Your task to perform on an android device: Open privacy settings Image 0: 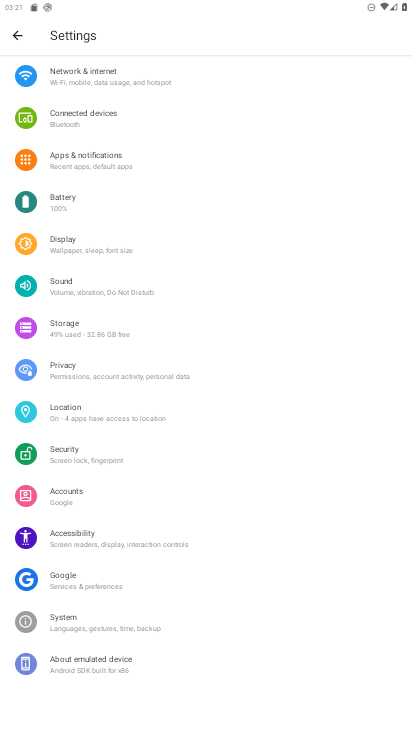
Step 0: press home button
Your task to perform on an android device: Open privacy settings Image 1: 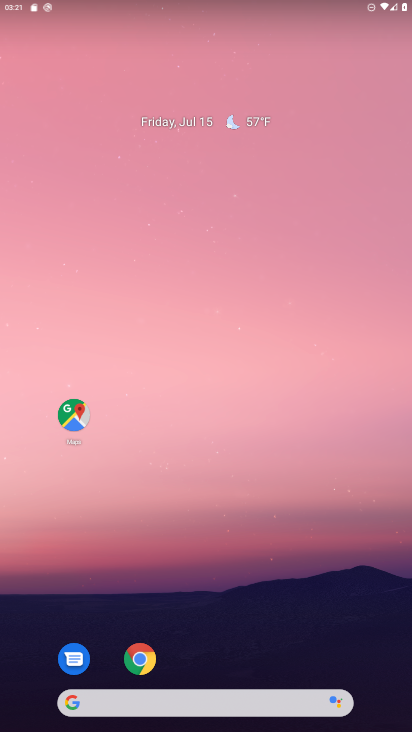
Step 1: drag from (195, 636) to (166, 39)
Your task to perform on an android device: Open privacy settings Image 2: 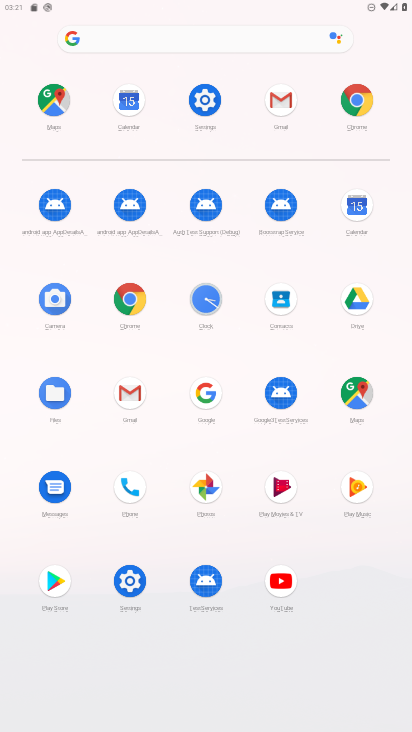
Step 2: click (137, 577)
Your task to perform on an android device: Open privacy settings Image 3: 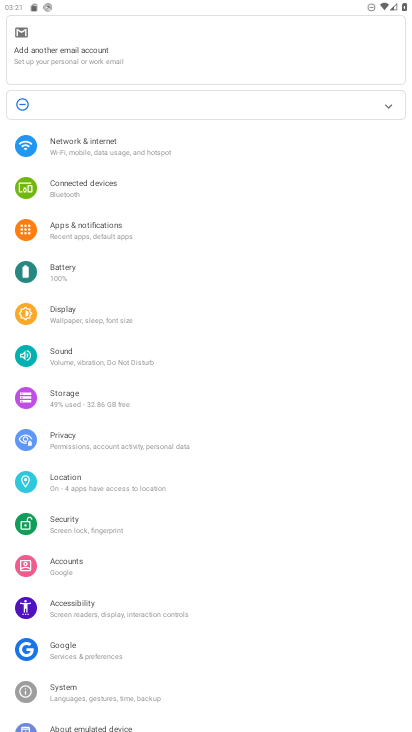
Step 3: click (78, 441)
Your task to perform on an android device: Open privacy settings Image 4: 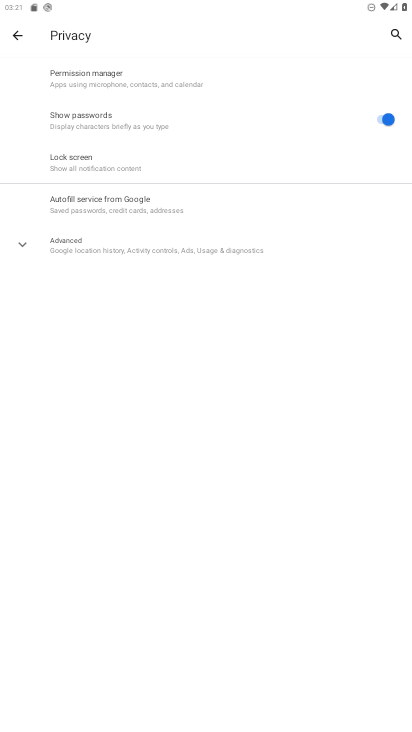
Step 4: task complete